Your task to perform on an android device: toggle data saver in the chrome app Image 0: 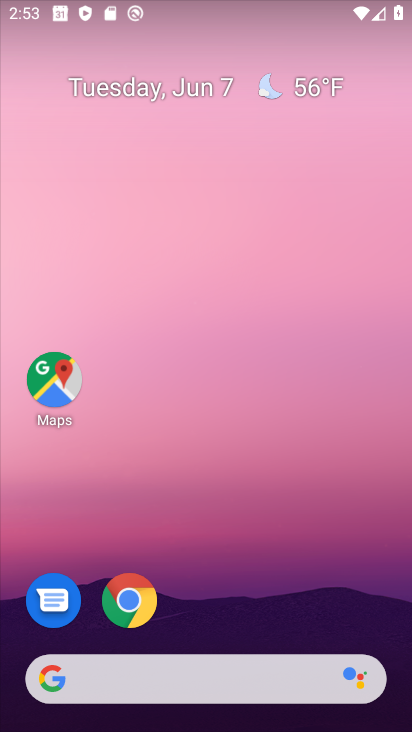
Step 0: click (123, 585)
Your task to perform on an android device: toggle data saver in the chrome app Image 1: 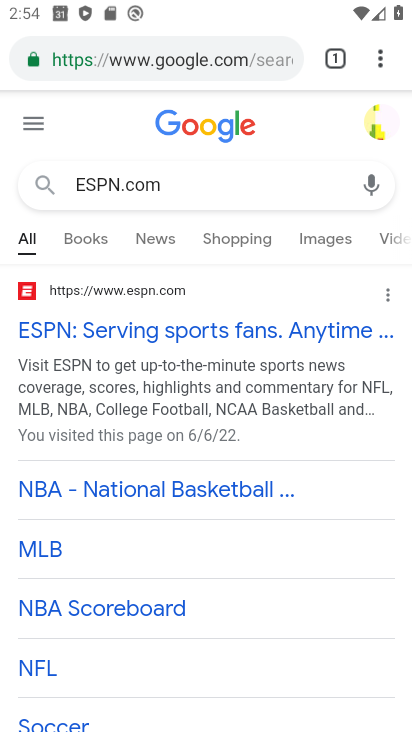
Step 1: click (376, 58)
Your task to perform on an android device: toggle data saver in the chrome app Image 2: 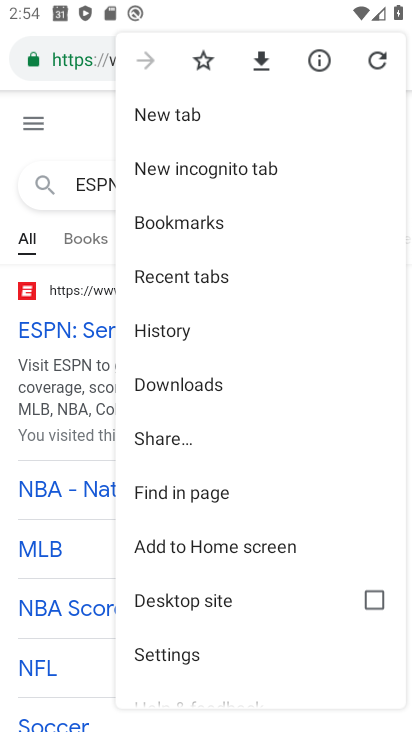
Step 2: drag from (258, 526) to (253, 243)
Your task to perform on an android device: toggle data saver in the chrome app Image 3: 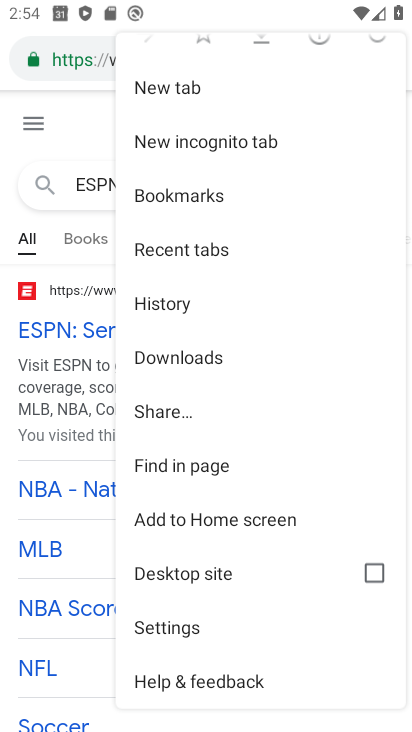
Step 3: click (175, 622)
Your task to perform on an android device: toggle data saver in the chrome app Image 4: 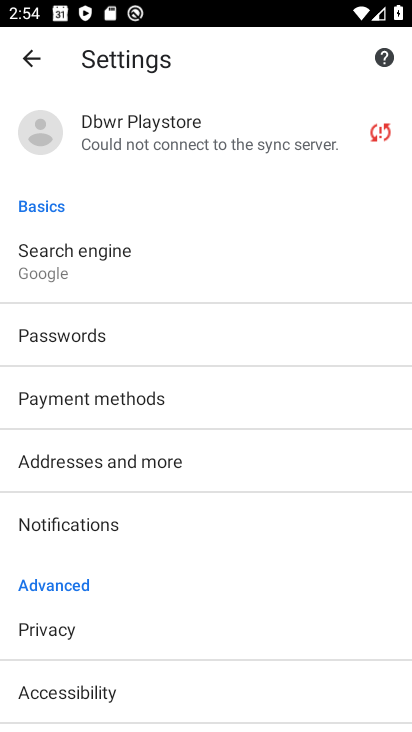
Step 4: drag from (192, 664) to (210, 278)
Your task to perform on an android device: toggle data saver in the chrome app Image 5: 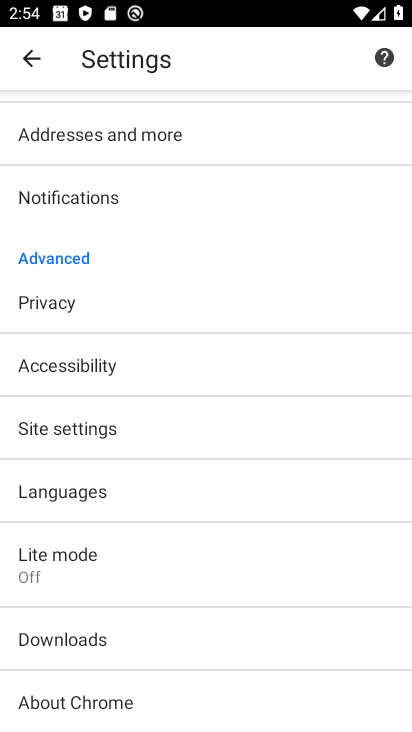
Step 5: click (75, 549)
Your task to perform on an android device: toggle data saver in the chrome app Image 6: 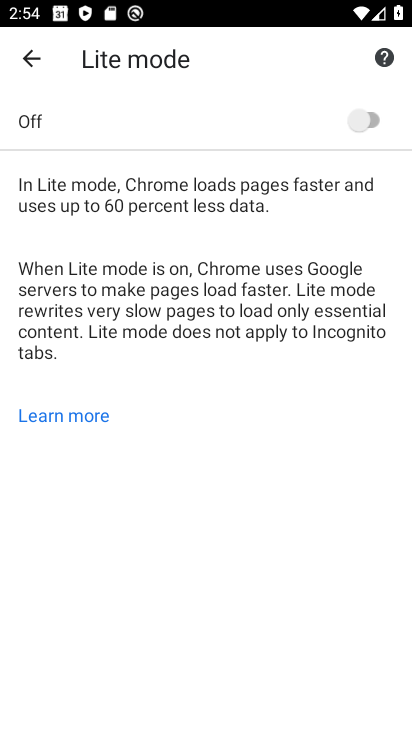
Step 6: click (376, 117)
Your task to perform on an android device: toggle data saver in the chrome app Image 7: 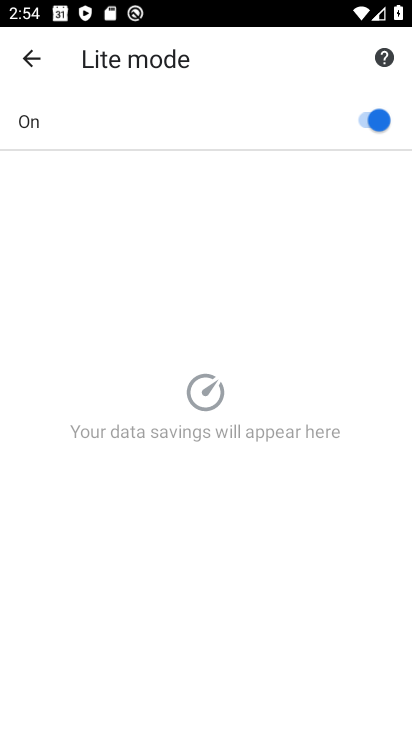
Step 7: task complete